Your task to perform on an android device: Check the news Image 0: 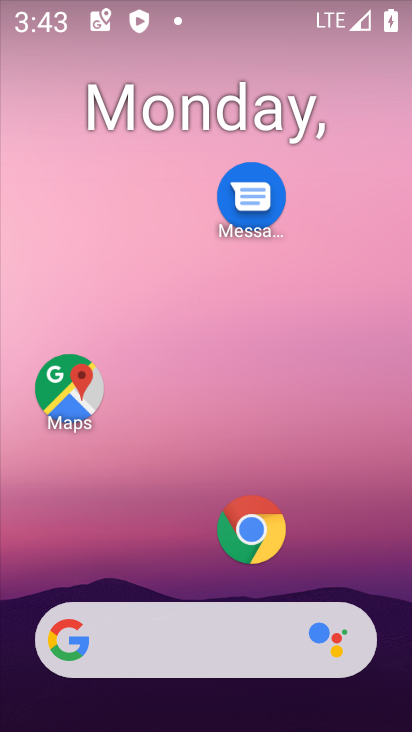
Step 0: click (163, 647)
Your task to perform on an android device: Check the news Image 1: 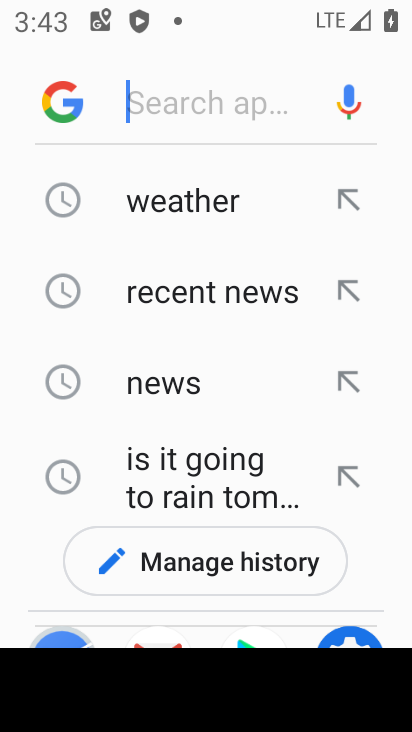
Step 1: click (194, 394)
Your task to perform on an android device: Check the news Image 2: 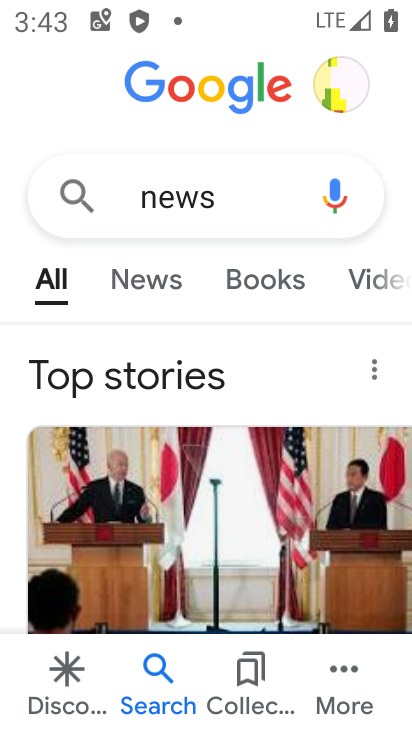
Step 2: task complete